Your task to perform on an android device: Open sound settings Image 0: 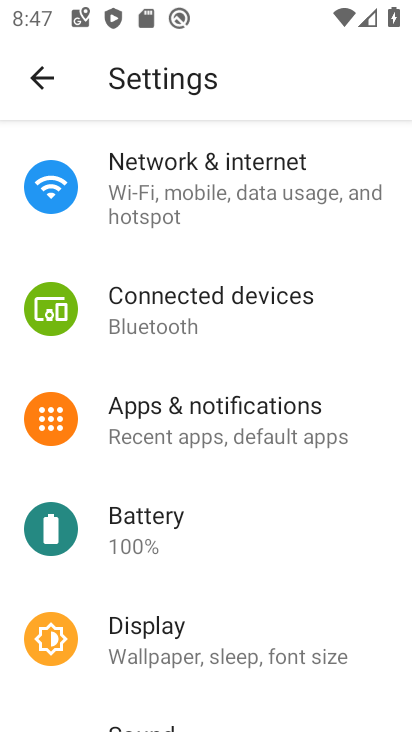
Step 0: drag from (181, 669) to (275, 49)
Your task to perform on an android device: Open sound settings Image 1: 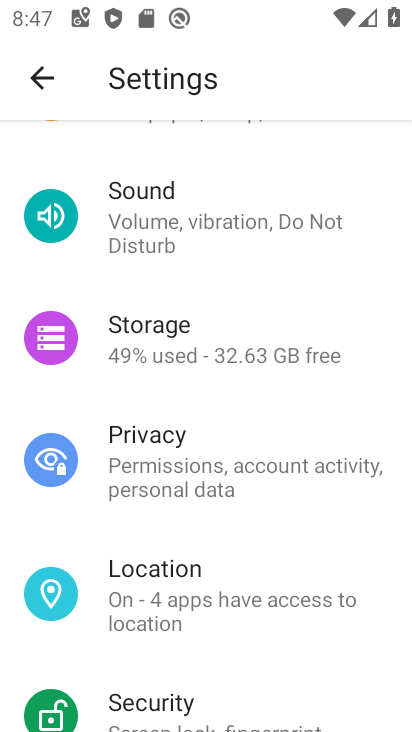
Step 1: click (179, 188)
Your task to perform on an android device: Open sound settings Image 2: 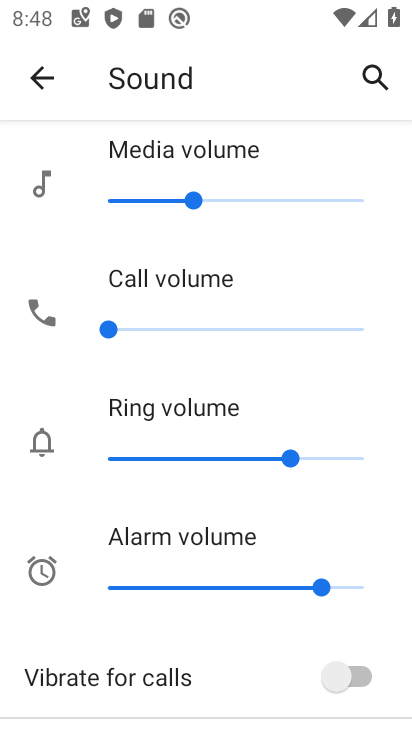
Step 2: task complete